Your task to perform on an android device: open app "Adobe Acrobat Reader: Edit PDF" (install if not already installed), go to login, and select forgot password Image 0: 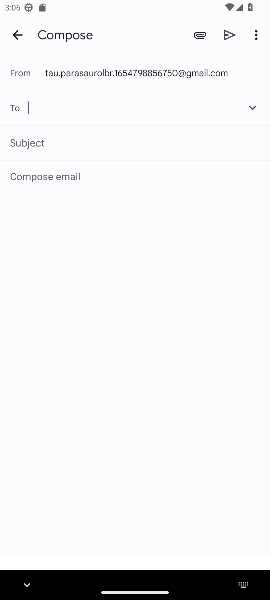
Step 0: press home button
Your task to perform on an android device: open app "Adobe Acrobat Reader: Edit PDF" (install if not already installed), go to login, and select forgot password Image 1: 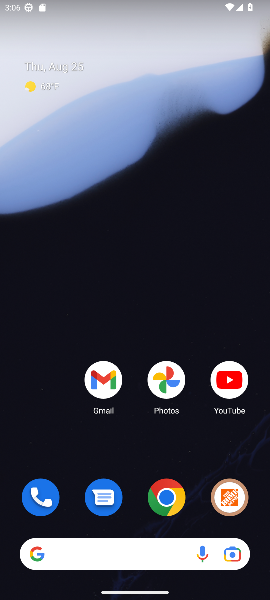
Step 1: drag from (151, 459) to (127, 260)
Your task to perform on an android device: open app "Adobe Acrobat Reader: Edit PDF" (install if not already installed), go to login, and select forgot password Image 2: 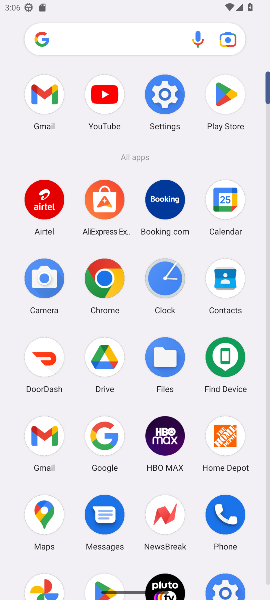
Step 2: click (228, 86)
Your task to perform on an android device: open app "Adobe Acrobat Reader: Edit PDF" (install if not already installed), go to login, and select forgot password Image 3: 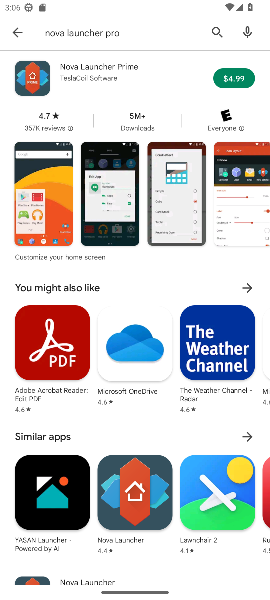
Step 3: click (10, 37)
Your task to perform on an android device: open app "Adobe Acrobat Reader: Edit PDF" (install if not already installed), go to login, and select forgot password Image 4: 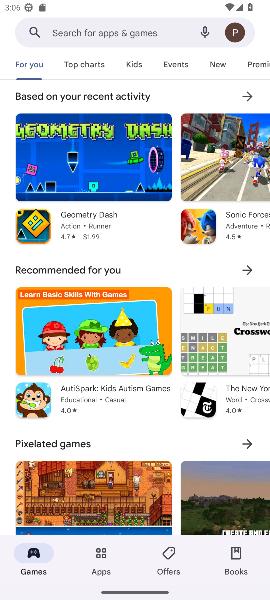
Step 4: click (145, 31)
Your task to perform on an android device: open app "Adobe Acrobat Reader: Edit PDF" (install if not already installed), go to login, and select forgot password Image 5: 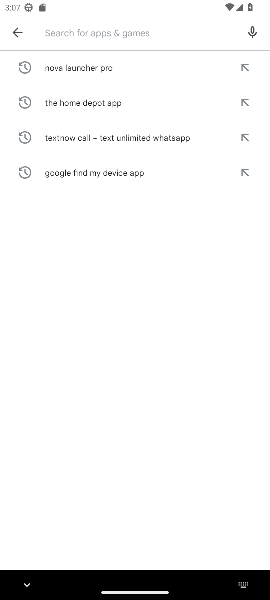
Step 5: type "Adobe Acrobat Reader "
Your task to perform on an android device: open app "Adobe Acrobat Reader: Edit PDF" (install if not already installed), go to login, and select forgot password Image 6: 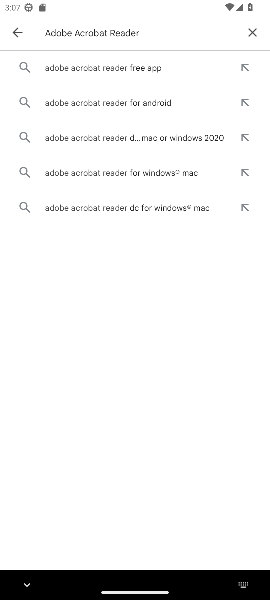
Step 6: click (91, 72)
Your task to perform on an android device: open app "Adobe Acrobat Reader: Edit PDF" (install if not already installed), go to login, and select forgot password Image 7: 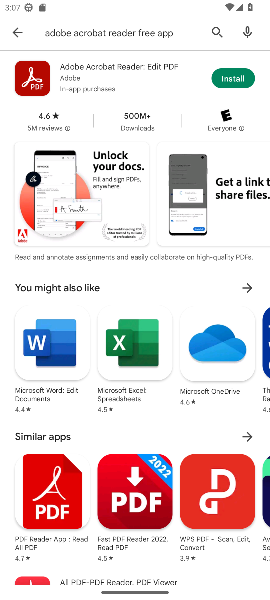
Step 7: click (225, 71)
Your task to perform on an android device: open app "Adobe Acrobat Reader: Edit PDF" (install if not already installed), go to login, and select forgot password Image 8: 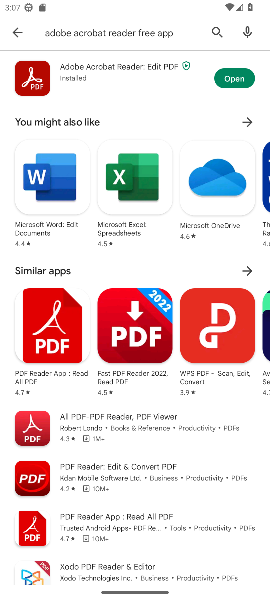
Step 8: task complete